Your task to perform on an android device: Search for the best gaming mouses on Amazon. Image 0: 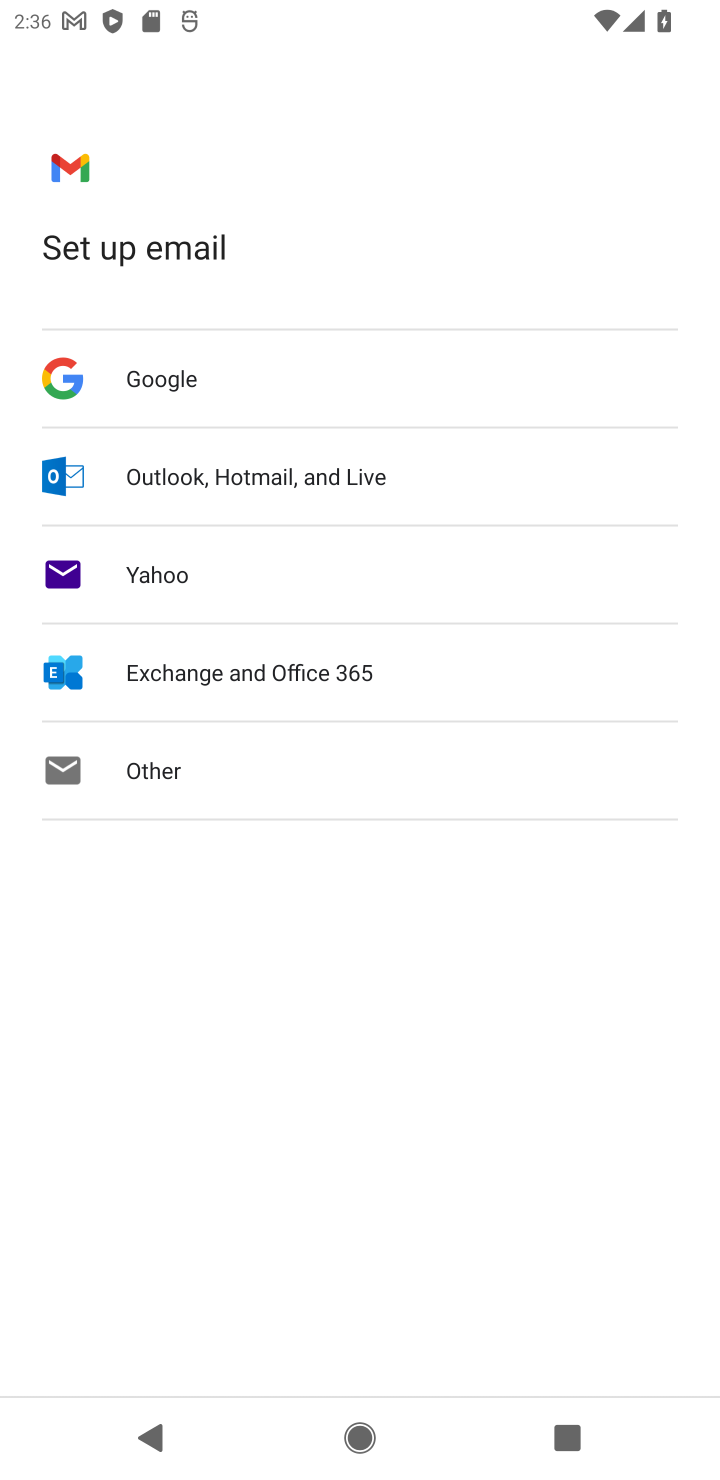
Step 0: press home button
Your task to perform on an android device: Search for the best gaming mouses on Amazon. Image 1: 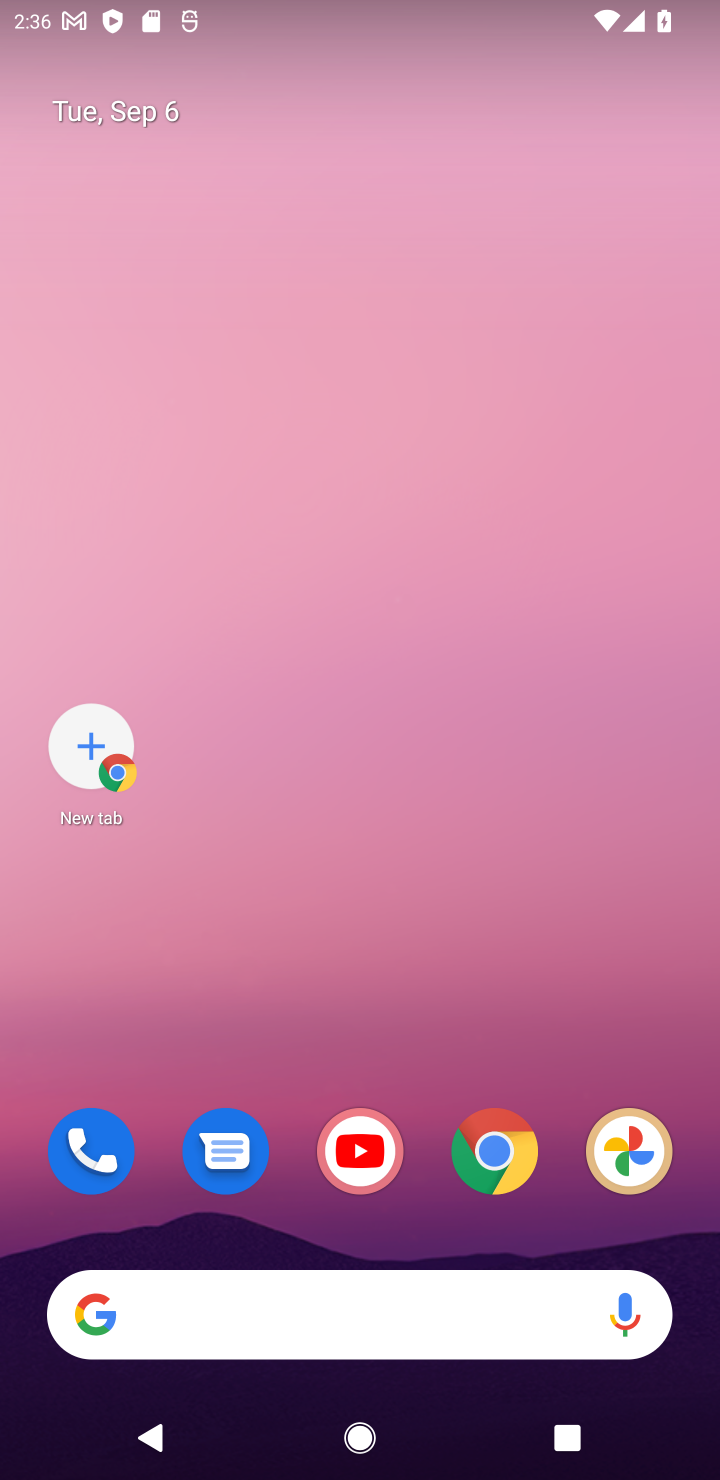
Step 1: click (500, 1160)
Your task to perform on an android device: Search for the best gaming mouses on Amazon. Image 2: 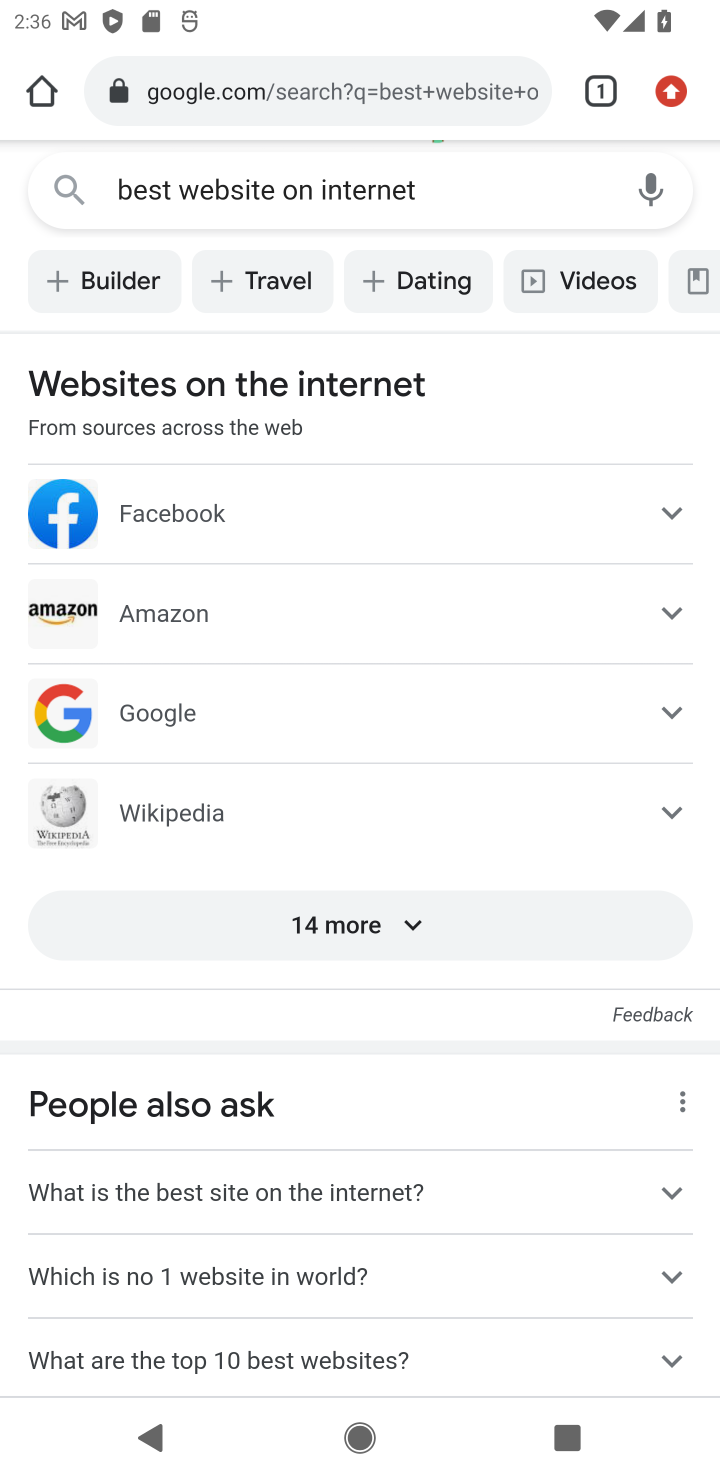
Step 2: click (249, 92)
Your task to perform on an android device: Search for the best gaming mouses on Amazon. Image 3: 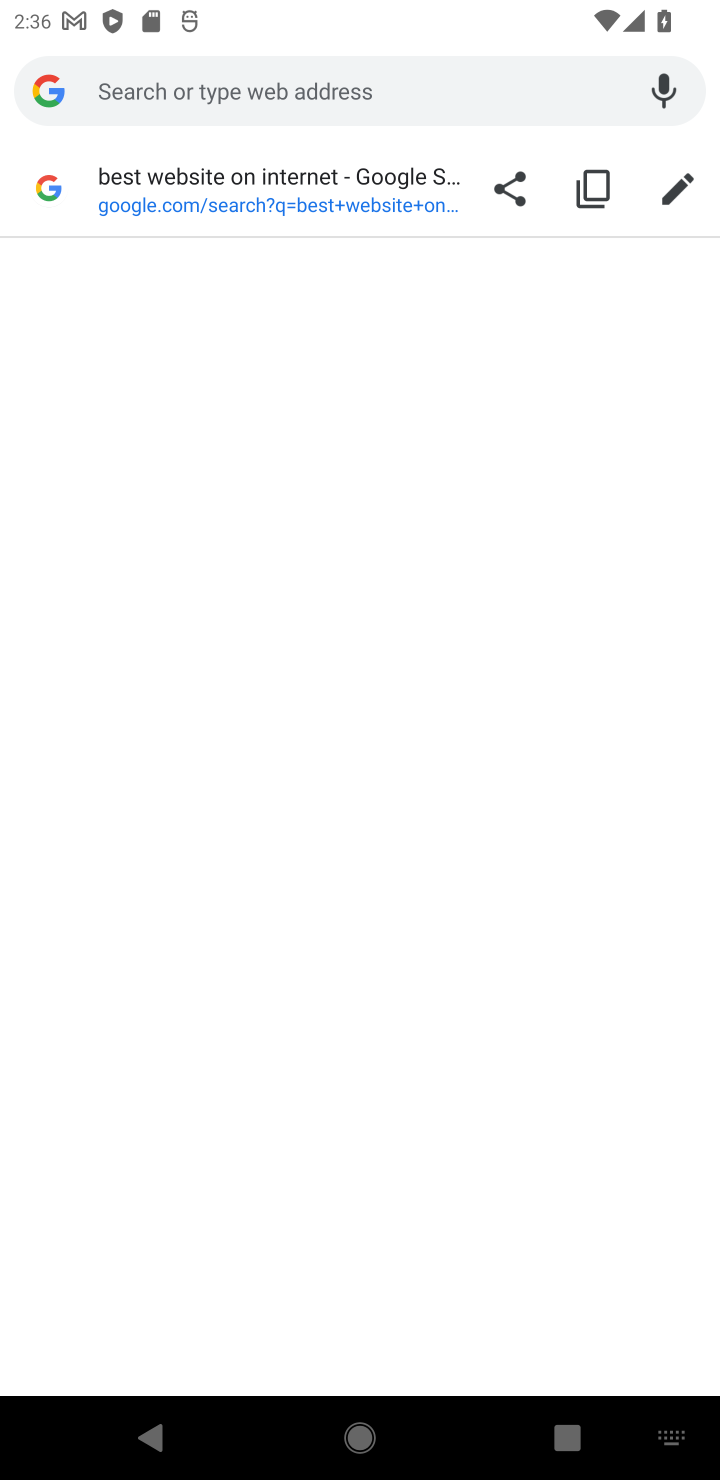
Step 3: type "amazon.com"
Your task to perform on an android device: Search for the best gaming mouses on Amazon. Image 4: 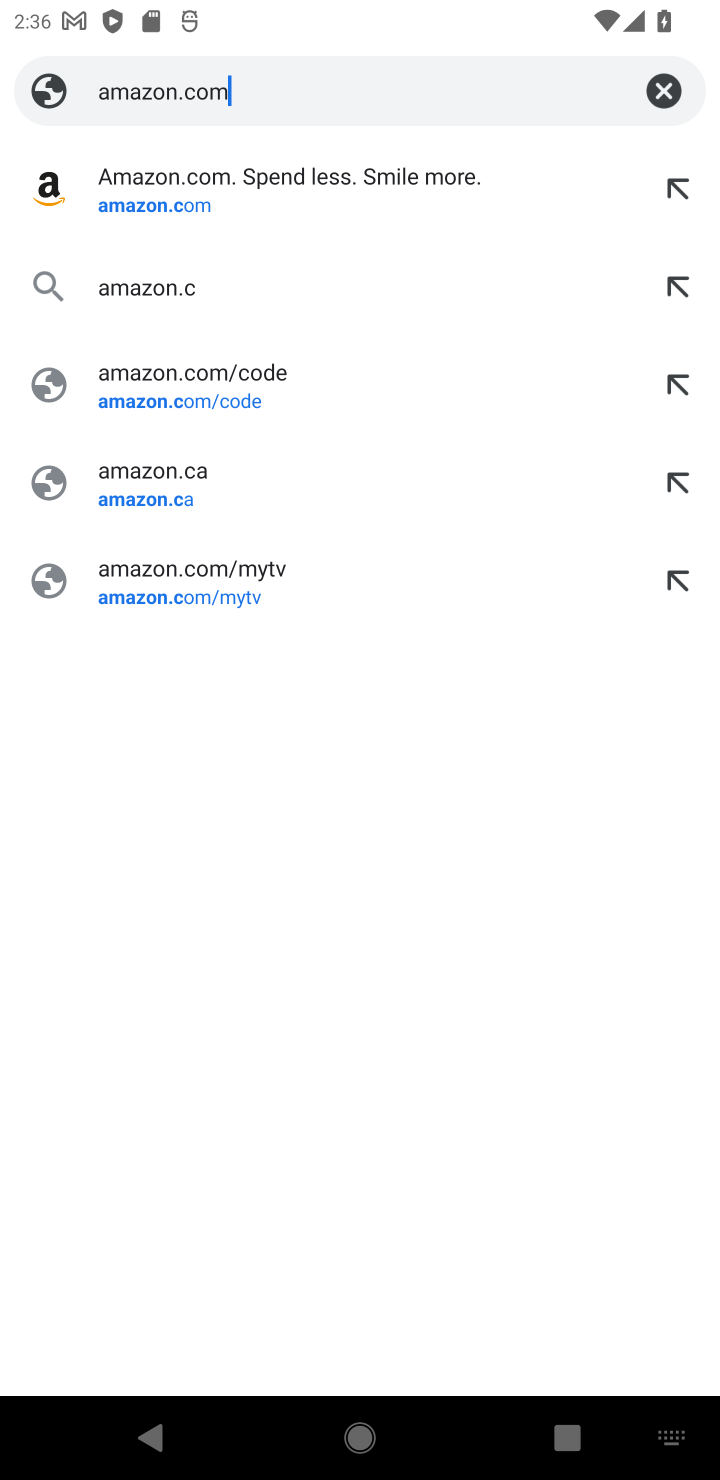
Step 4: type ""
Your task to perform on an android device: Search for the best gaming mouses on Amazon. Image 5: 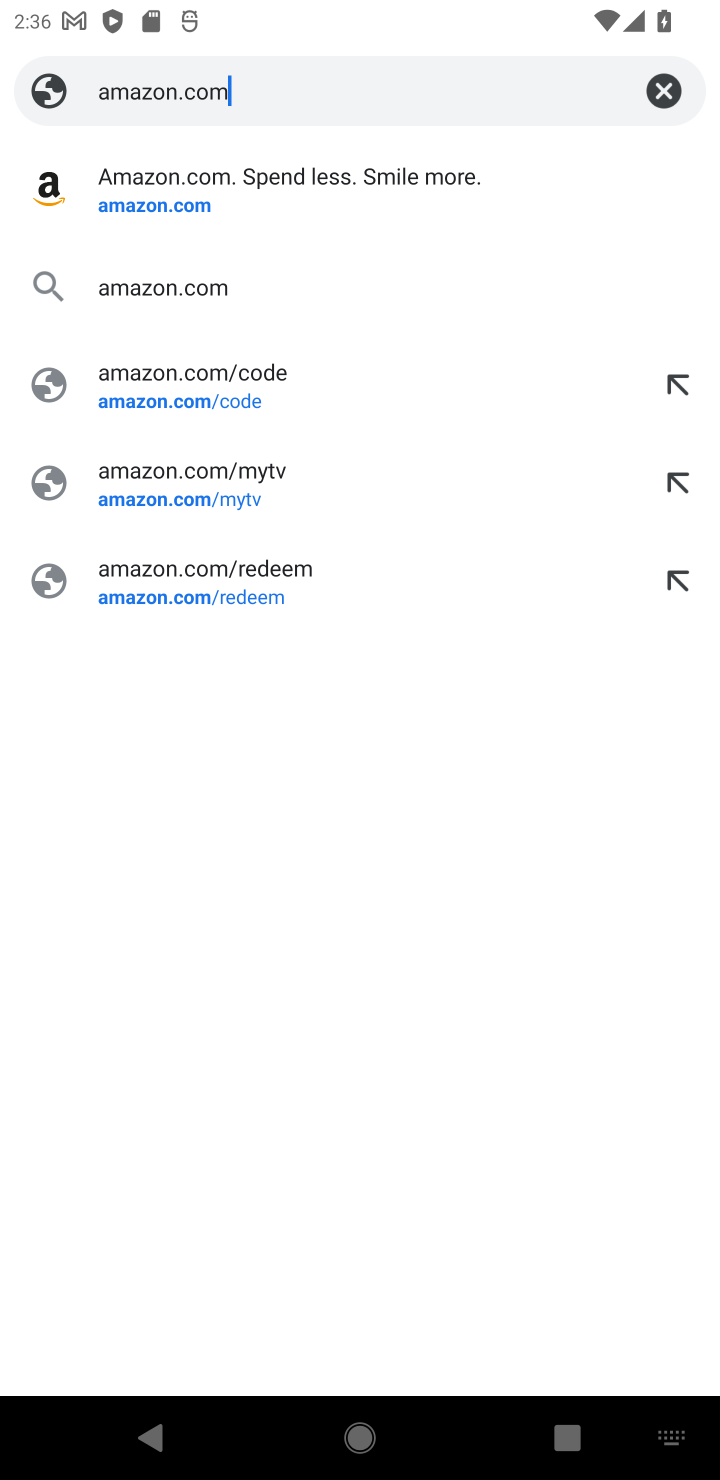
Step 5: click (189, 199)
Your task to perform on an android device: Search for the best gaming mouses on Amazon. Image 6: 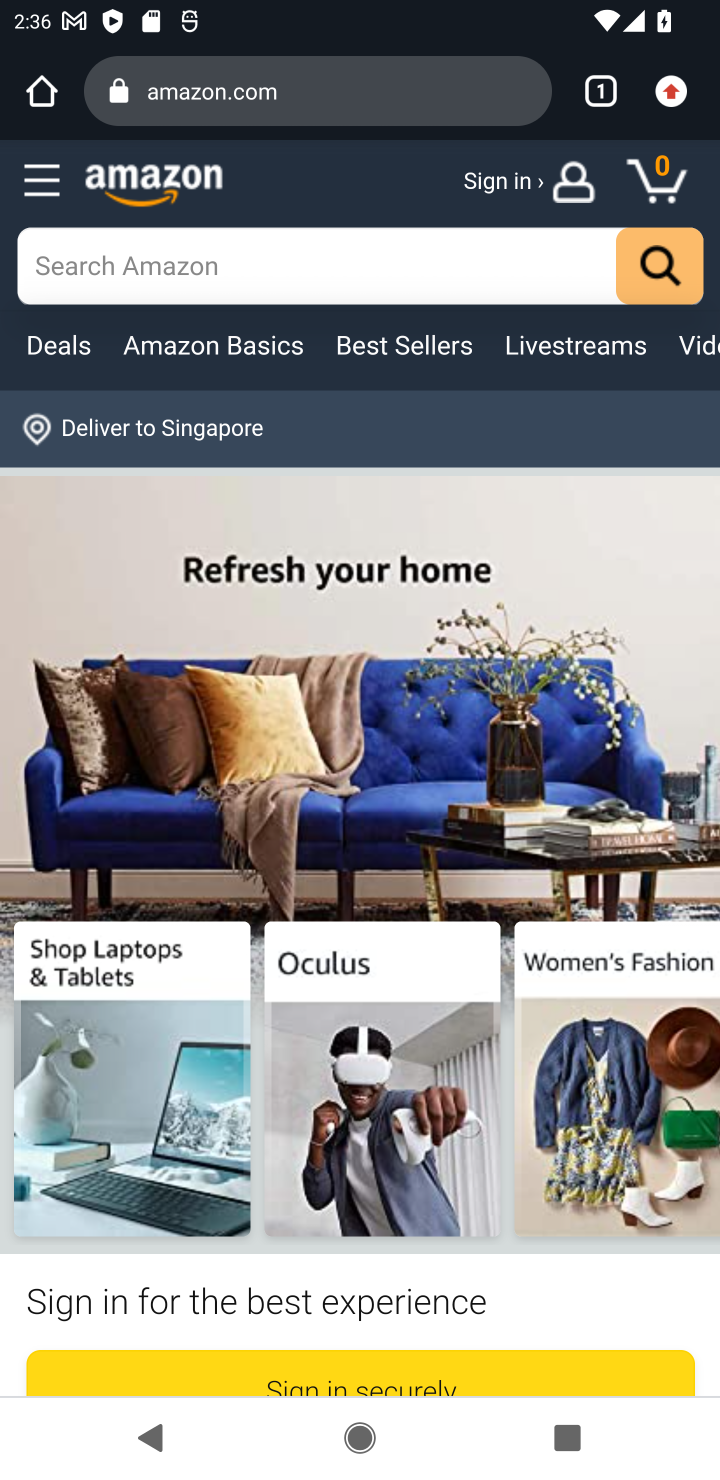
Step 6: click (144, 252)
Your task to perform on an android device: Search for the best gaming mouses on Amazon. Image 7: 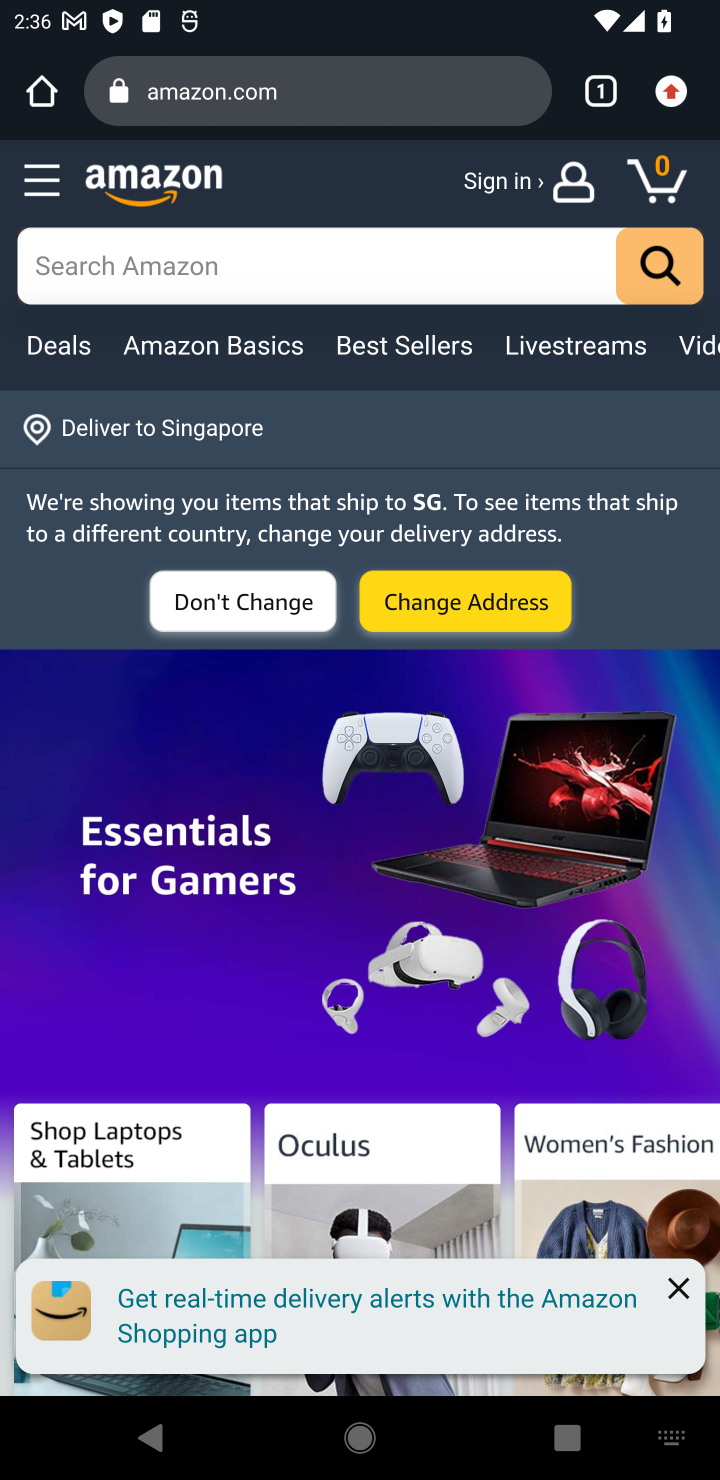
Step 7: type "gaming mouse"
Your task to perform on an android device: Search for the best gaming mouses on Amazon. Image 8: 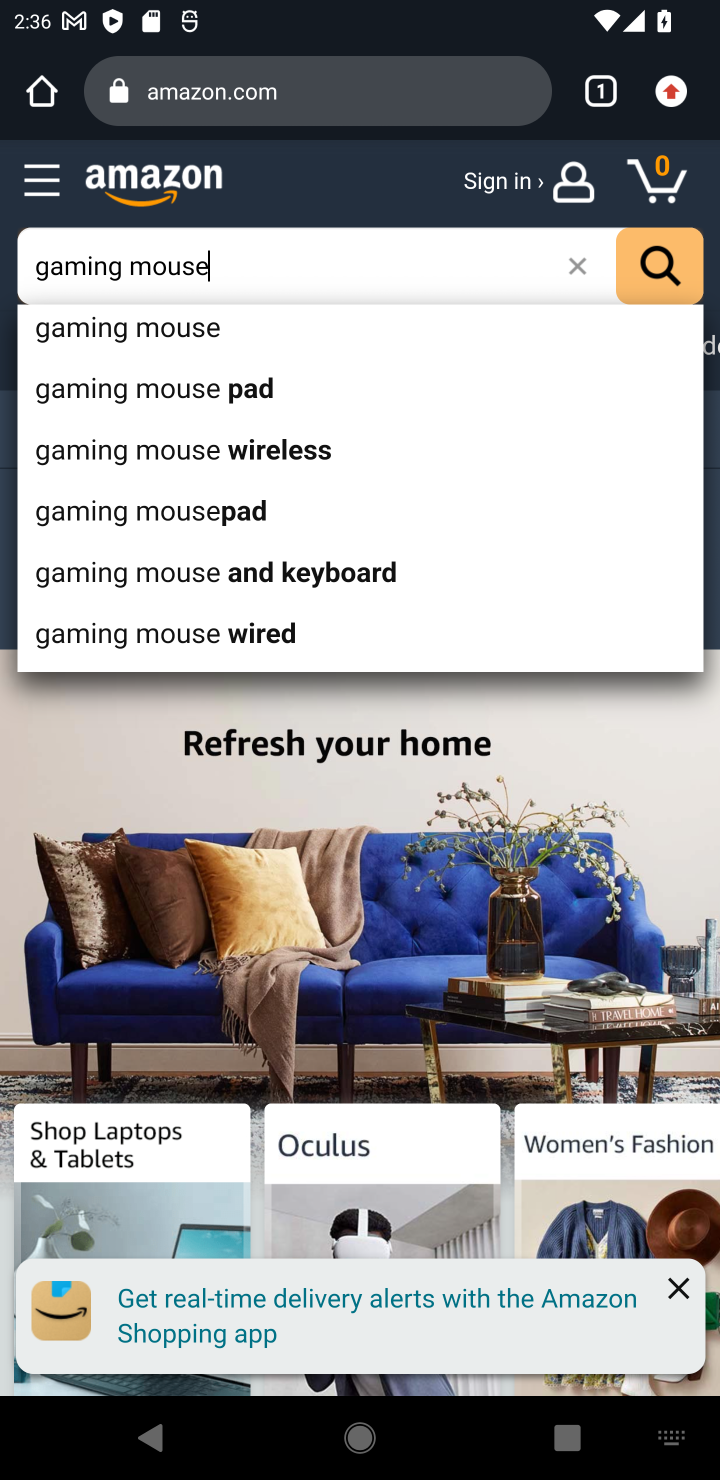
Step 8: click (109, 327)
Your task to perform on an android device: Search for the best gaming mouses on Amazon. Image 9: 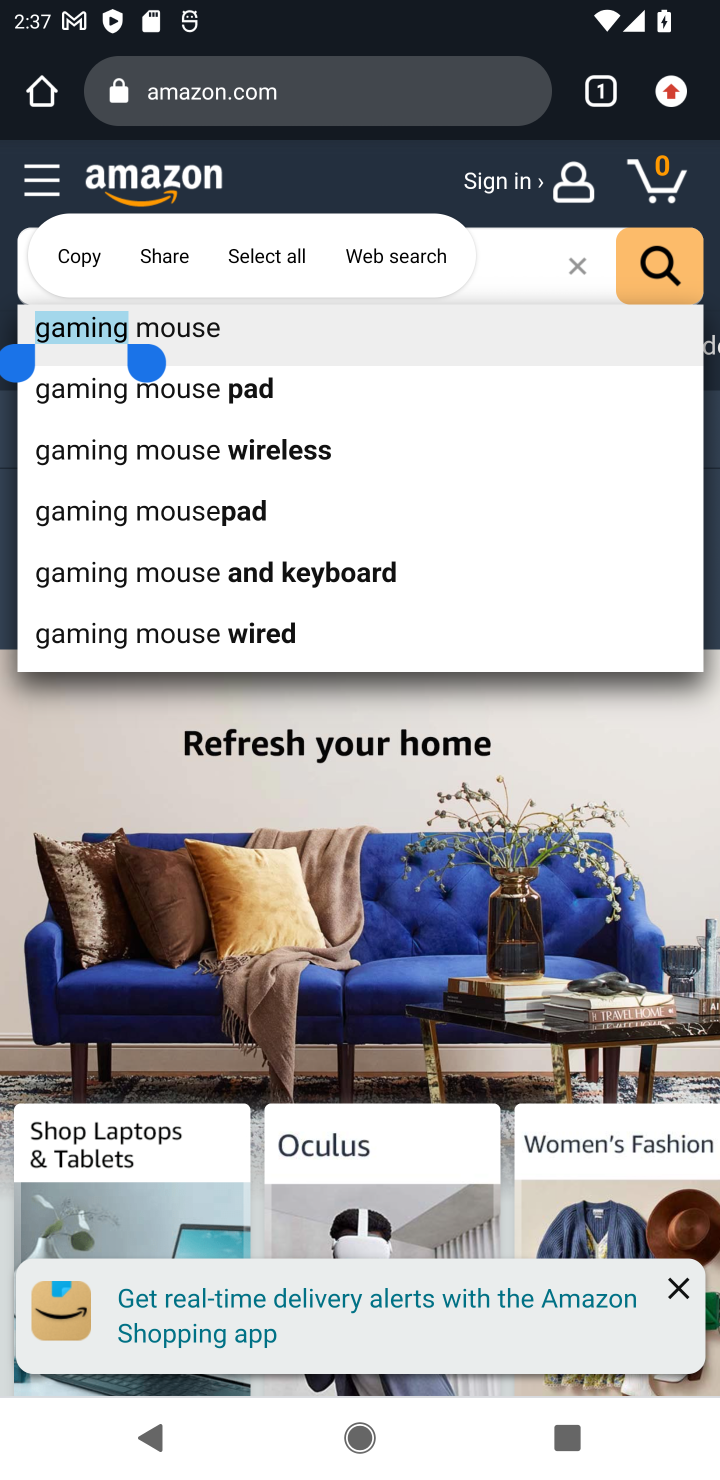
Step 9: click (203, 335)
Your task to perform on an android device: Search for the best gaming mouses on Amazon. Image 10: 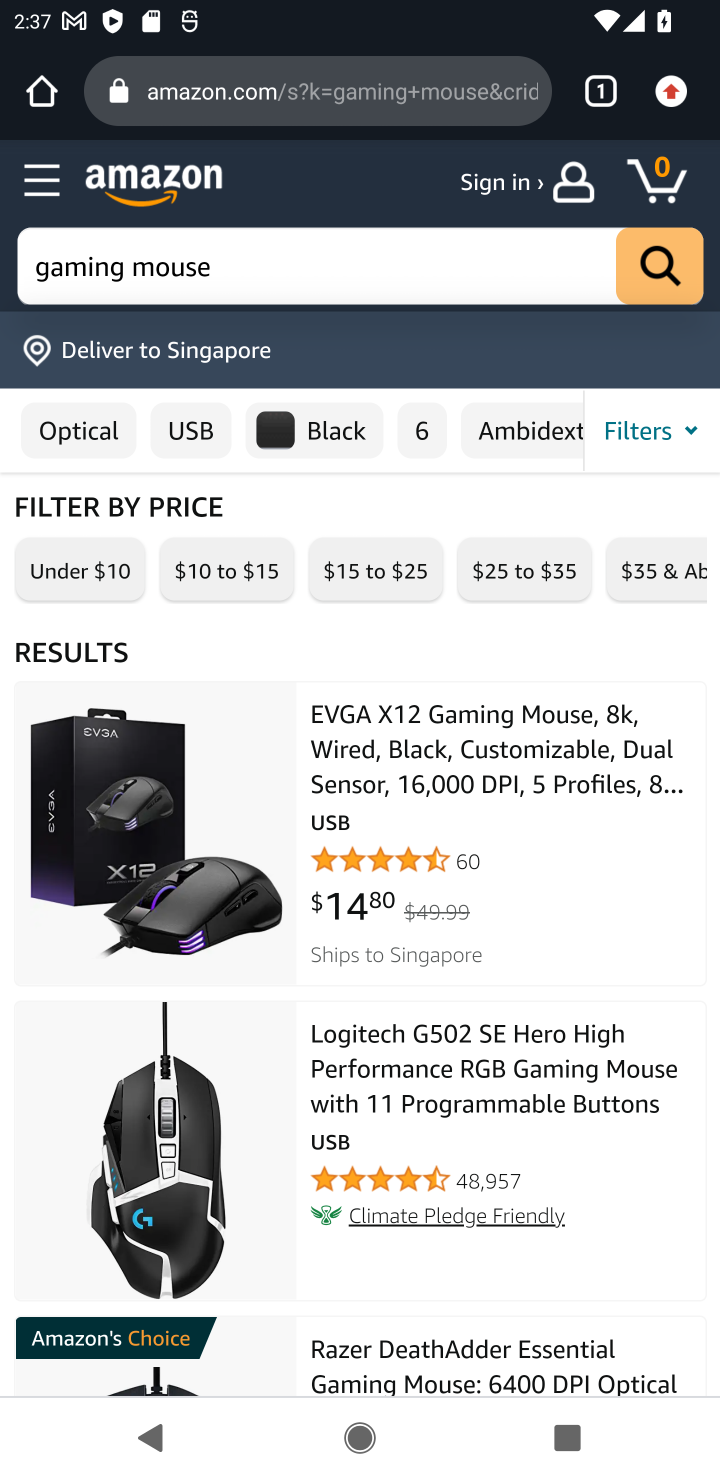
Step 10: click (628, 426)
Your task to perform on an android device: Search for the best gaming mouses on Amazon. Image 11: 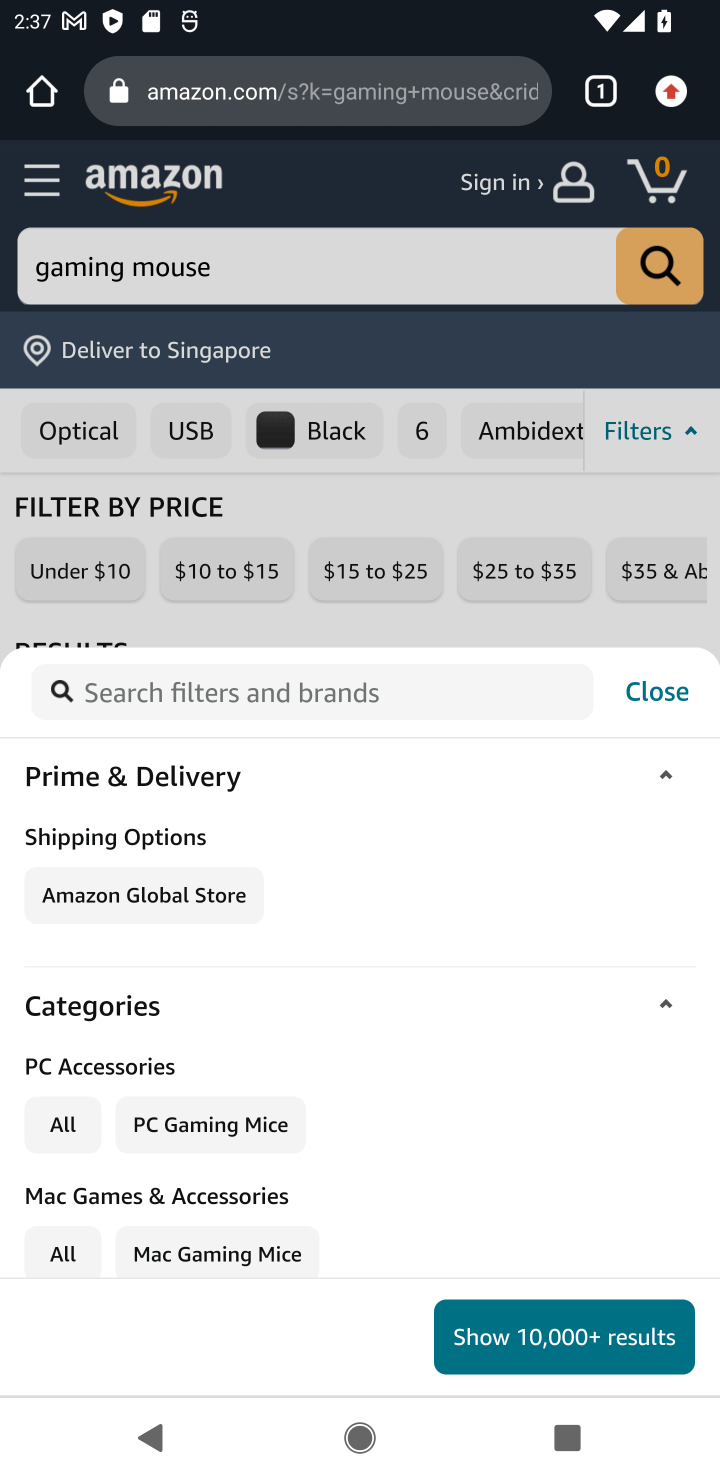
Step 11: drag from (429, 1170) to (419, 796)
Your task to perform on an android device: Search for the best gaming mouses on Amazon. Image 12: 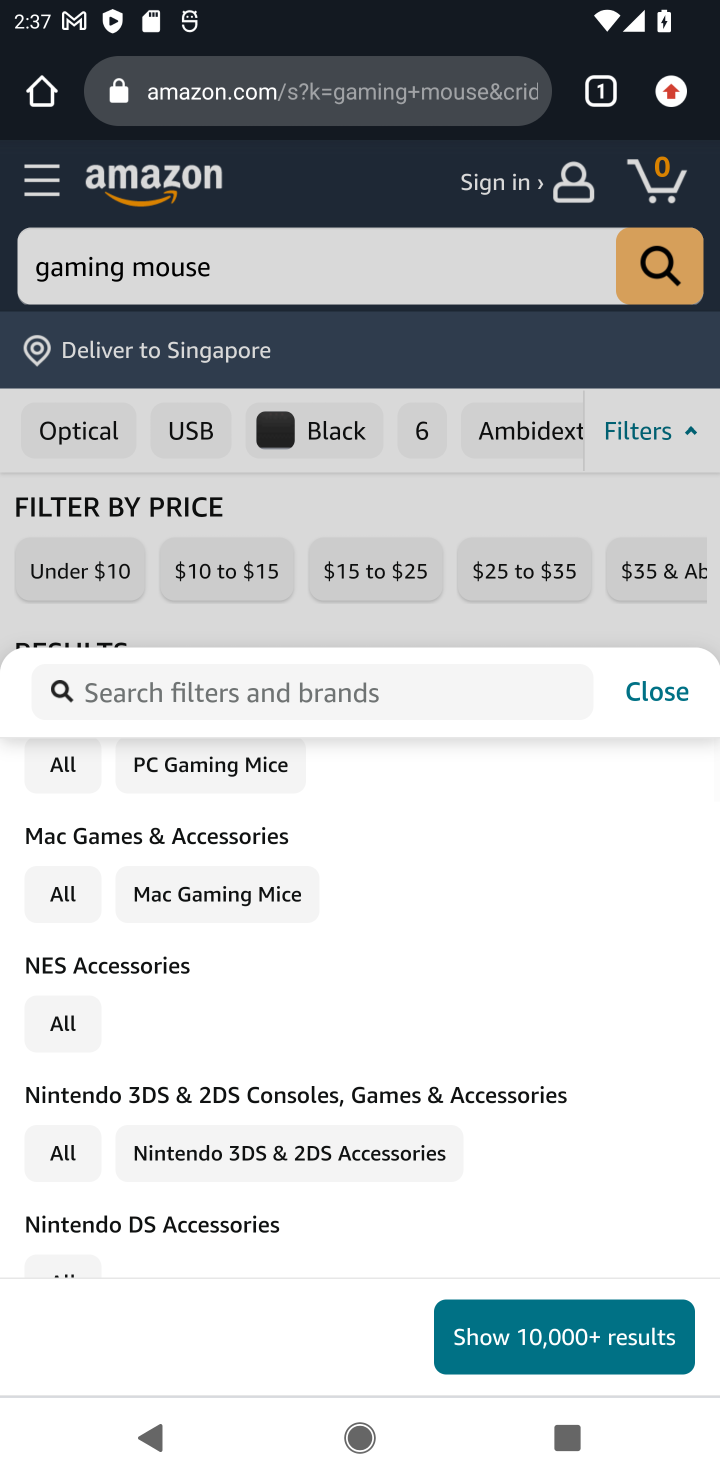
Step 12: drag from (278, 1052) to (325, 734)
Your task to perform on an android device: Search for the best gaming mouses on Amazon. Image 13: 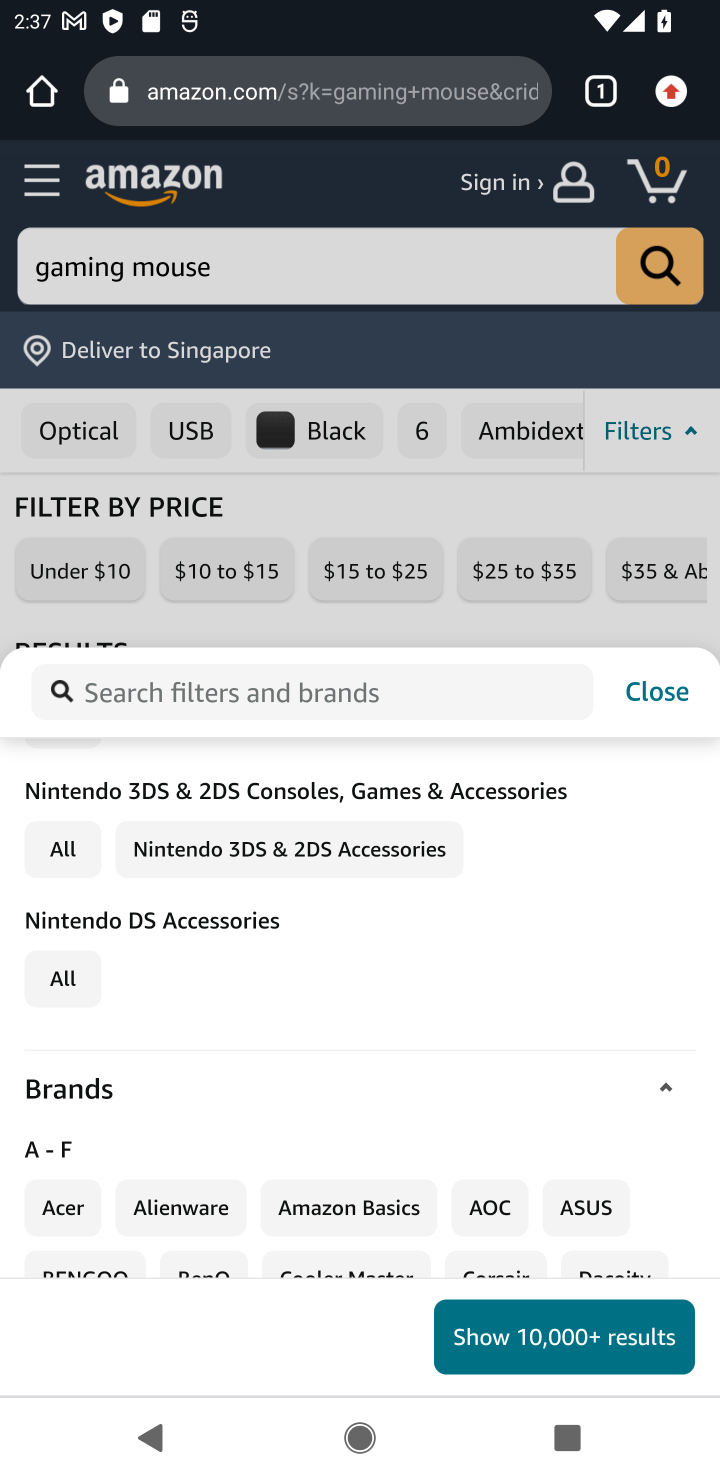
Step 13: drag from (258, 1042) to (278, 709)
Your task to perform on an android device: Search for the best gaming mouses on Amazon. Image 14: 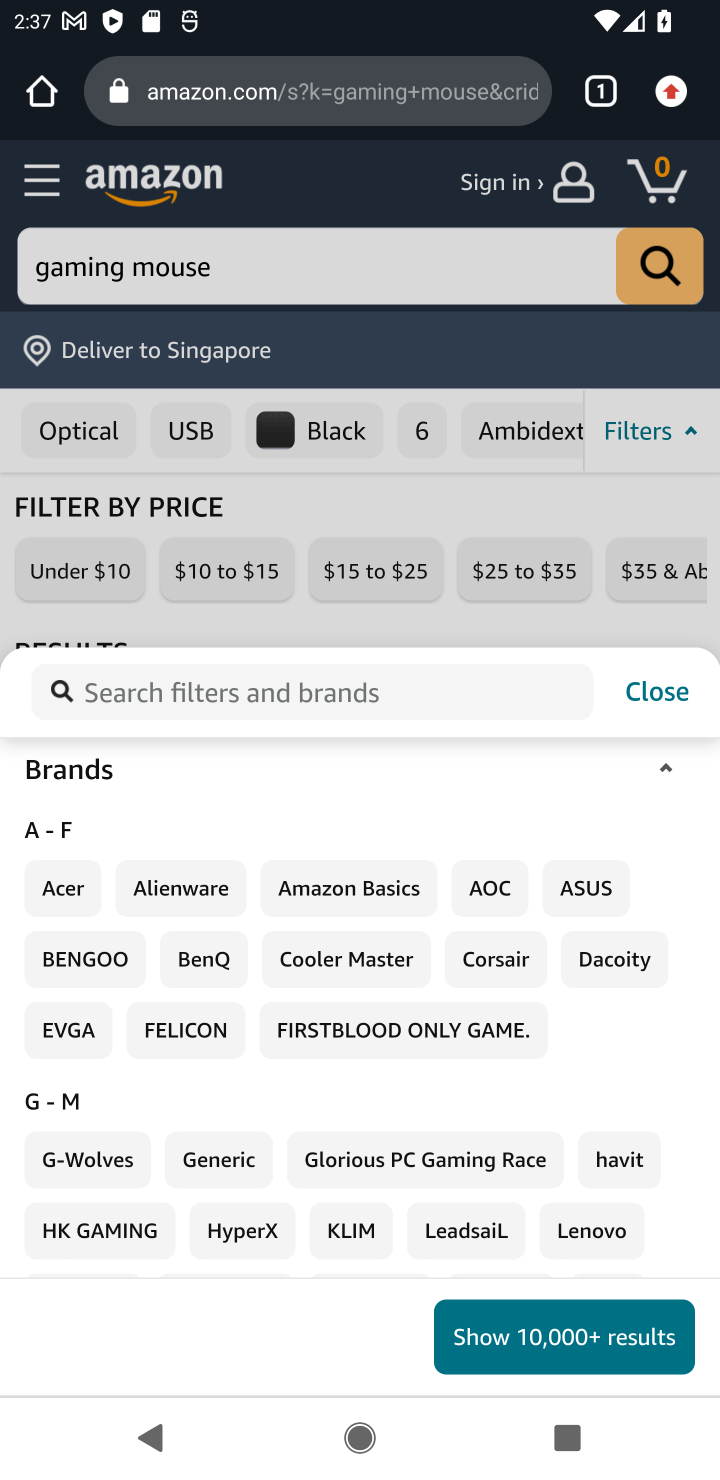
Step 14: drag from (323, 1073) to (323, 646)
Your task to perform on an android device: Search for the best gaming mouses on Amazon. Image 15: 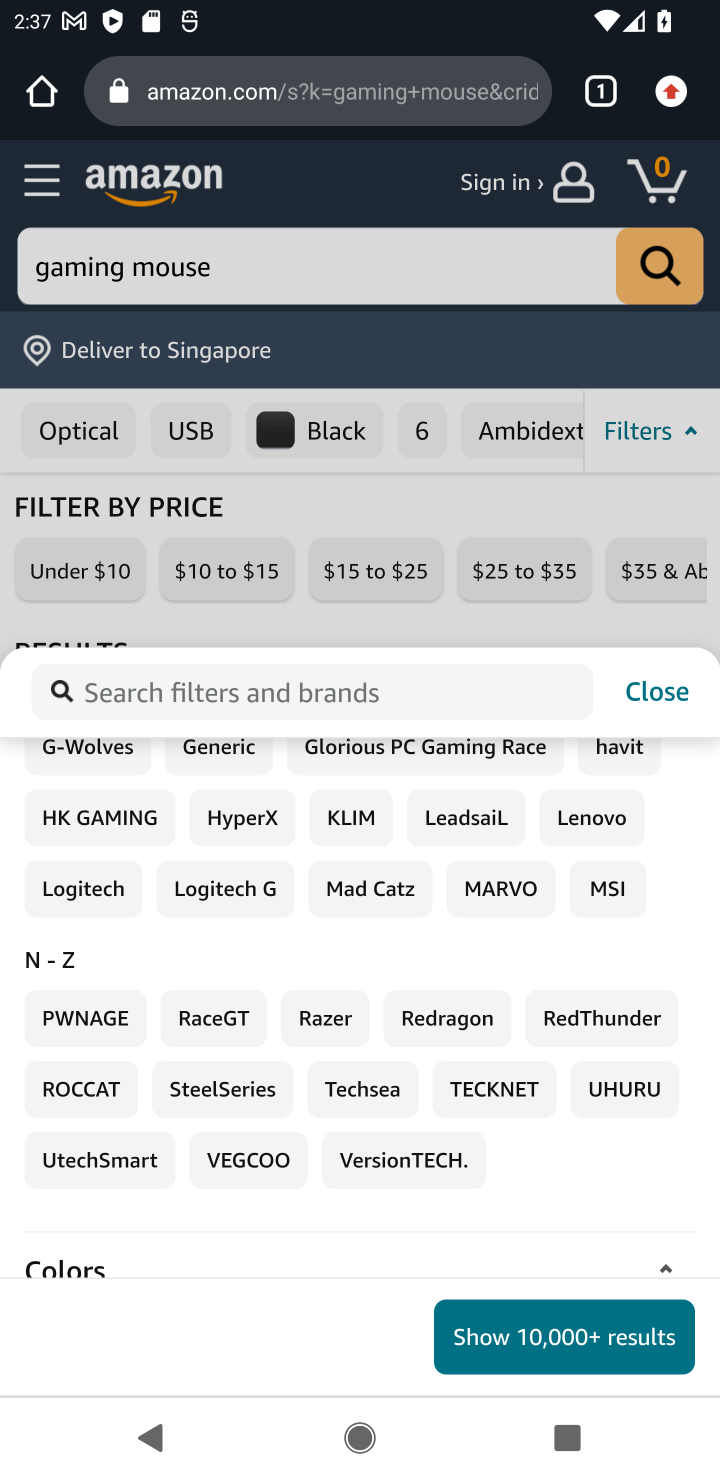
Step 15: drag from (302, 1219) to (371, 786)
Your task to perform on an android device: Search for the best gaming mouses on Amazon. Image 16: 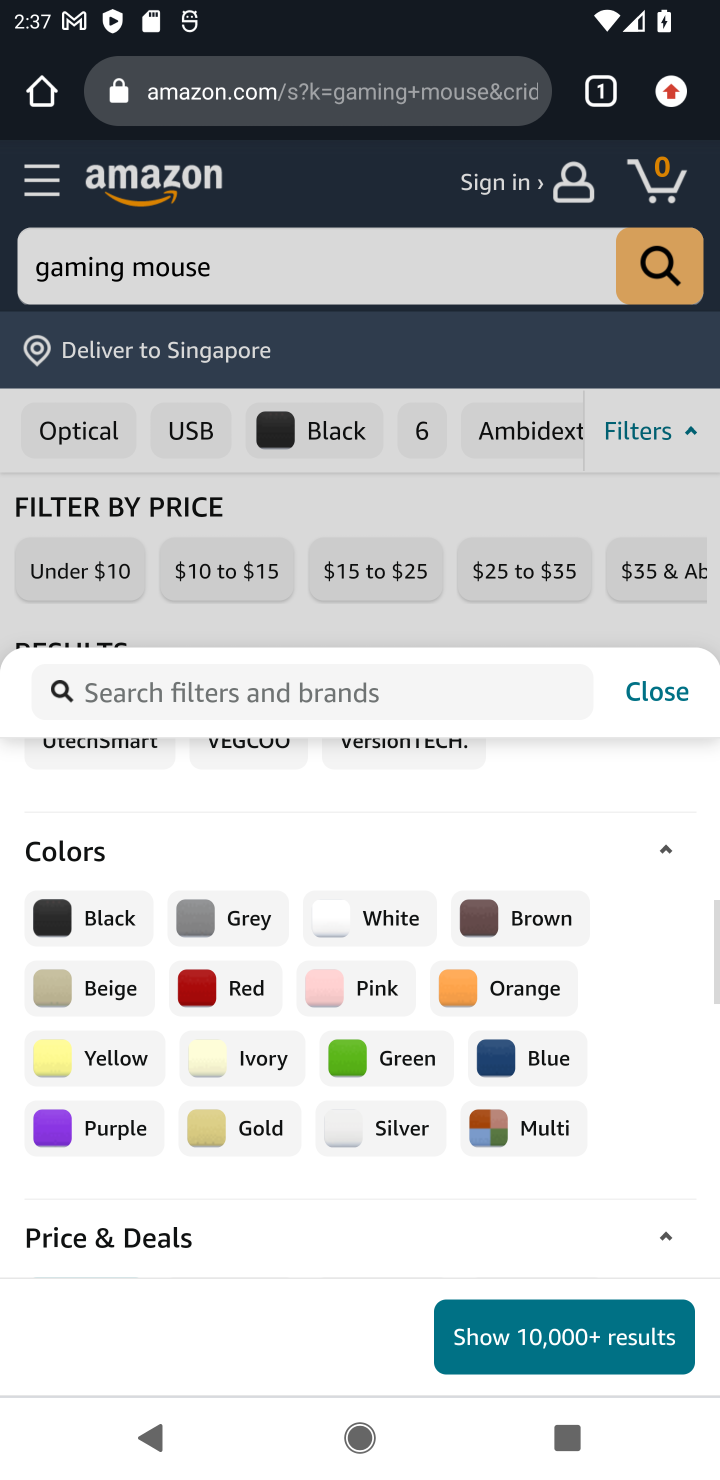
Step 16: drag from (292, 1268) to (292, 848)
Your task to perform on an android device: Search for the best gaming mouses on Amazon. Image 17: 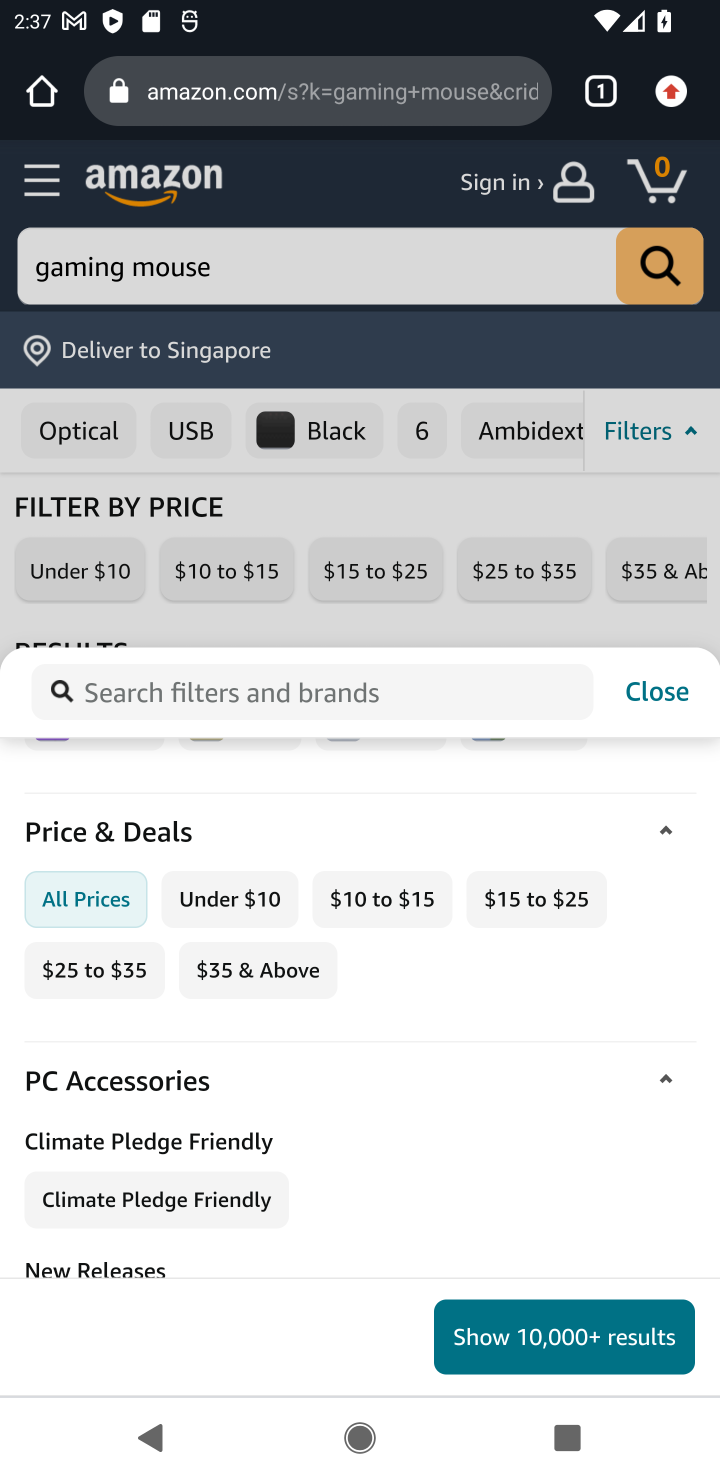
Step 17: drag from (310, 1165) to (280, 918)
Your task to perform on an android device: Search for the best gaming mouses on Amazon. Image 18: 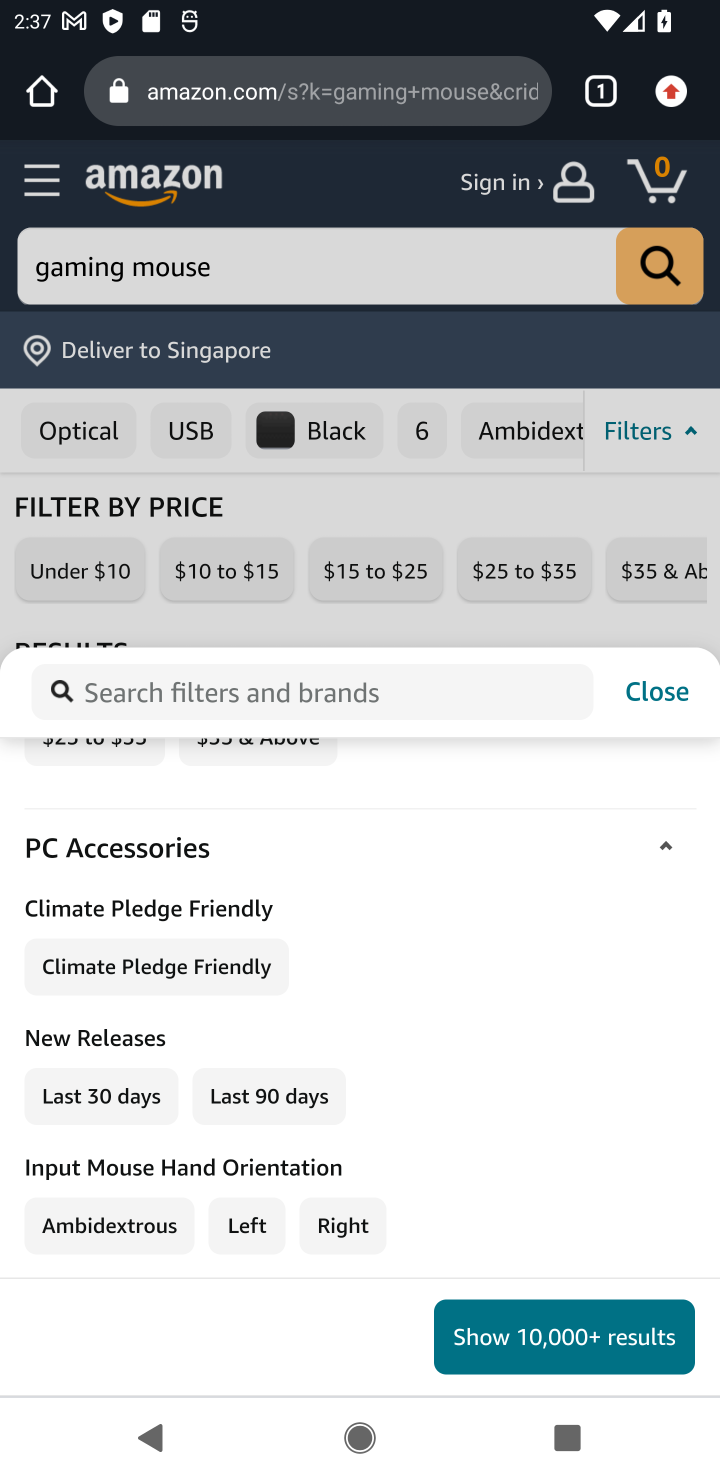
Step 18: drag from (453, 1096) to (480, 871)
Your task to perform on an android device: Search for the best gaming mouses on Amazon. Image 19: 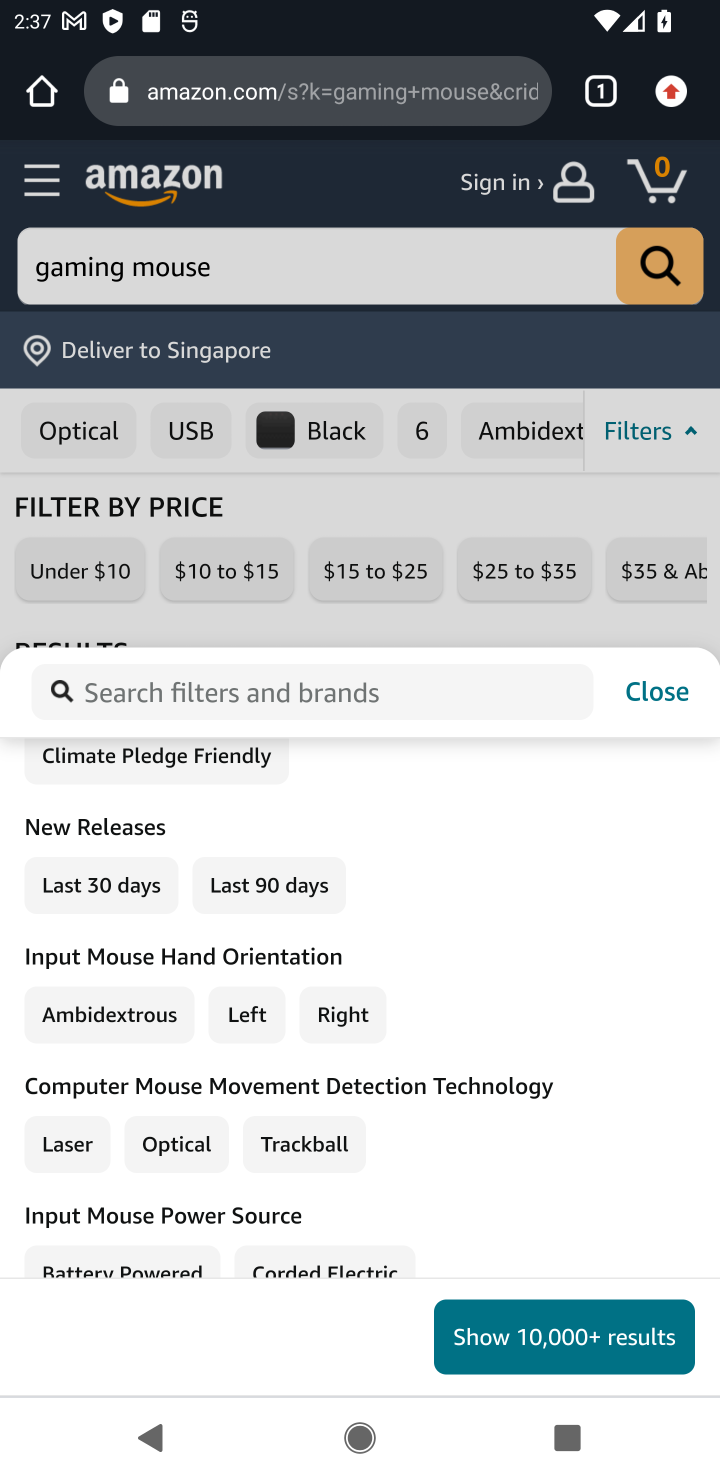
Step 19: drag from (546, 1009) to (537, 717)
Your task to perform on an android device: Search for the best gaming mouses on Amazon. Image 20: 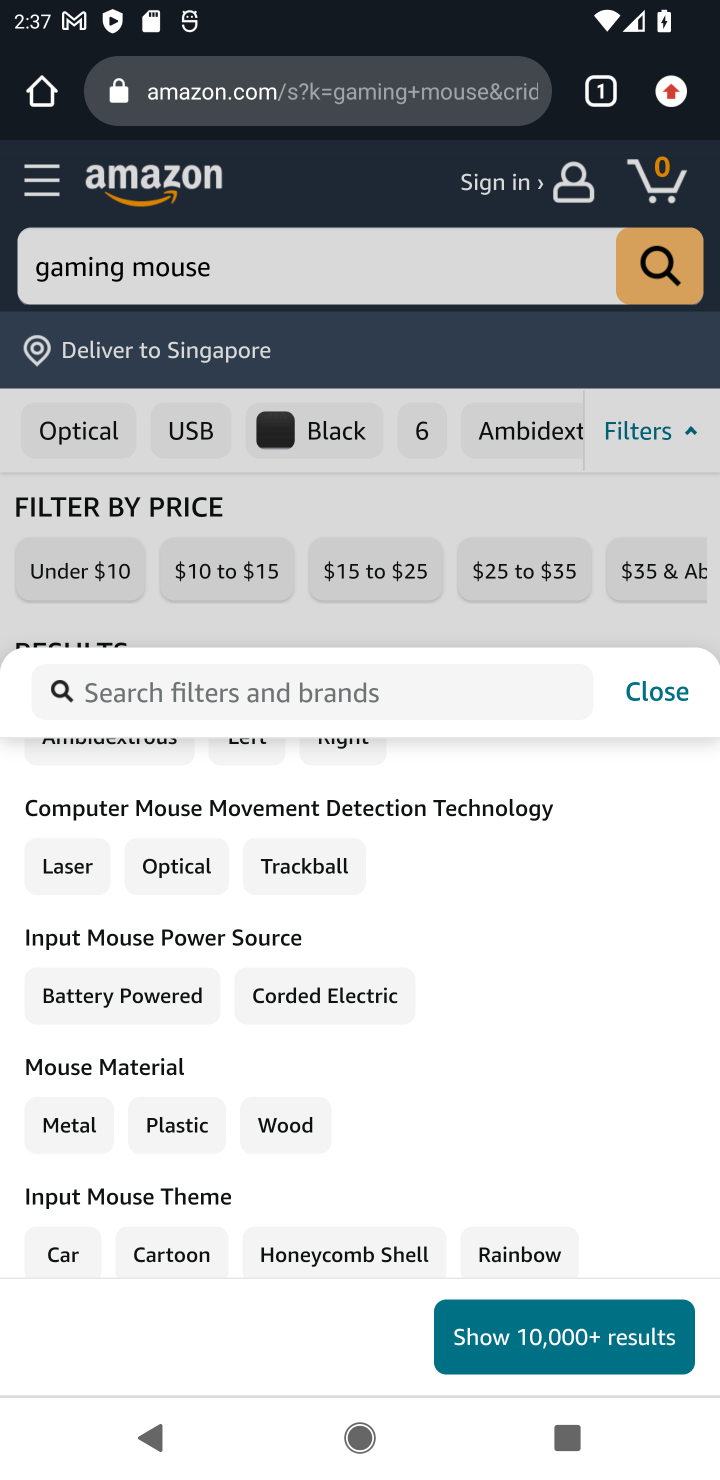
Step 20: drag from (463, 1102) to (615, 828)
Your task to perform on an android device: Search for the best gaming mouses on Amazon. Image 21: 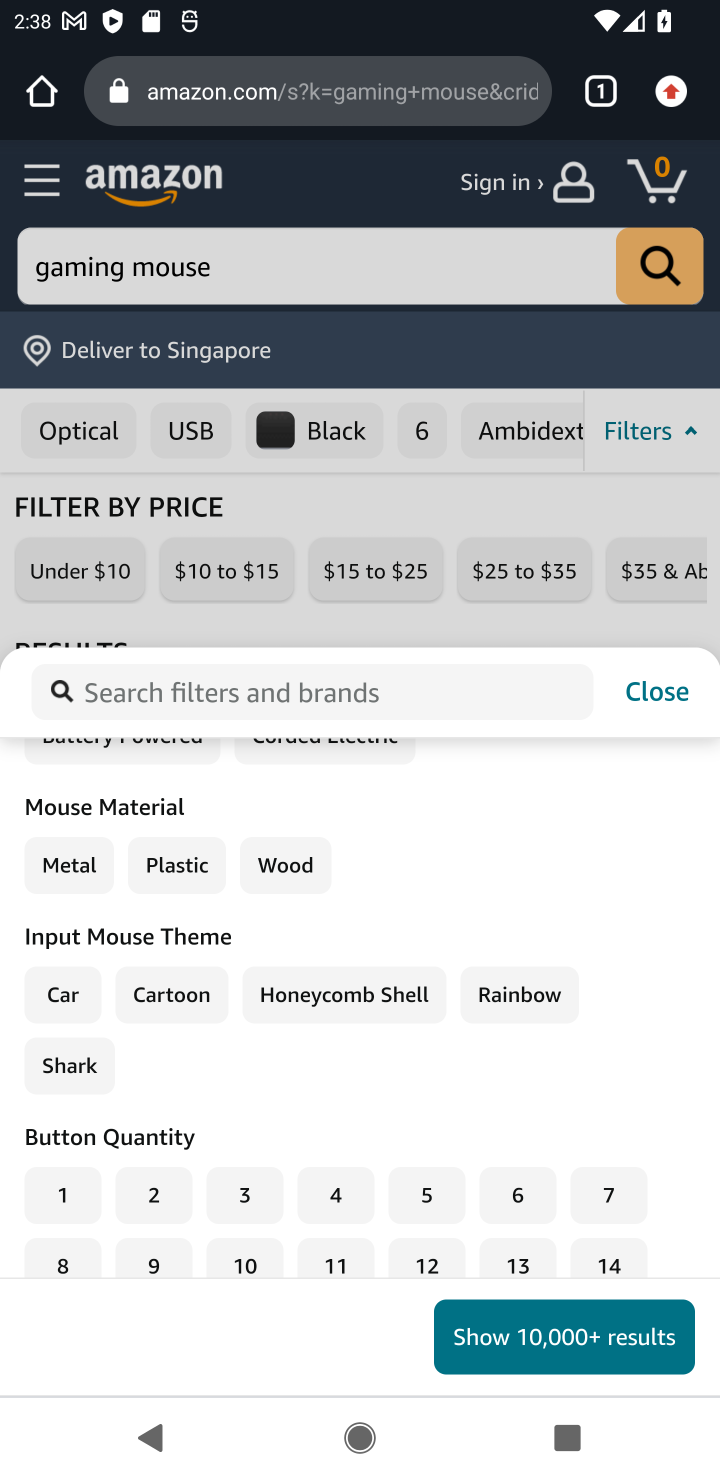
Step 21: drag from (610, 964) to (622, 850)
Your task to perform on an android device: Search for the best gaming mouses on Amazon. Image 22: 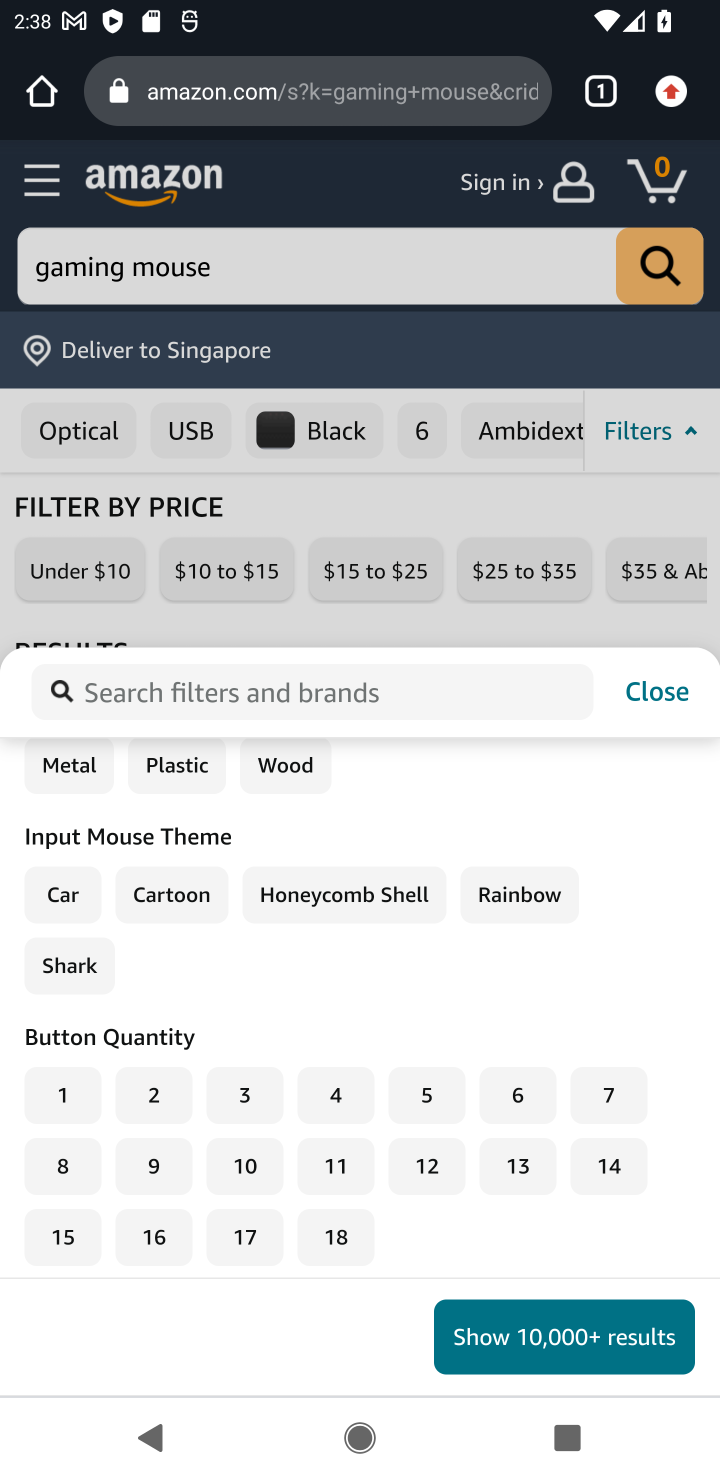
Step 22: click (662, 699)
Your task to perform on an android device: Search for the best gaming mouses on Amazon. Image 23: 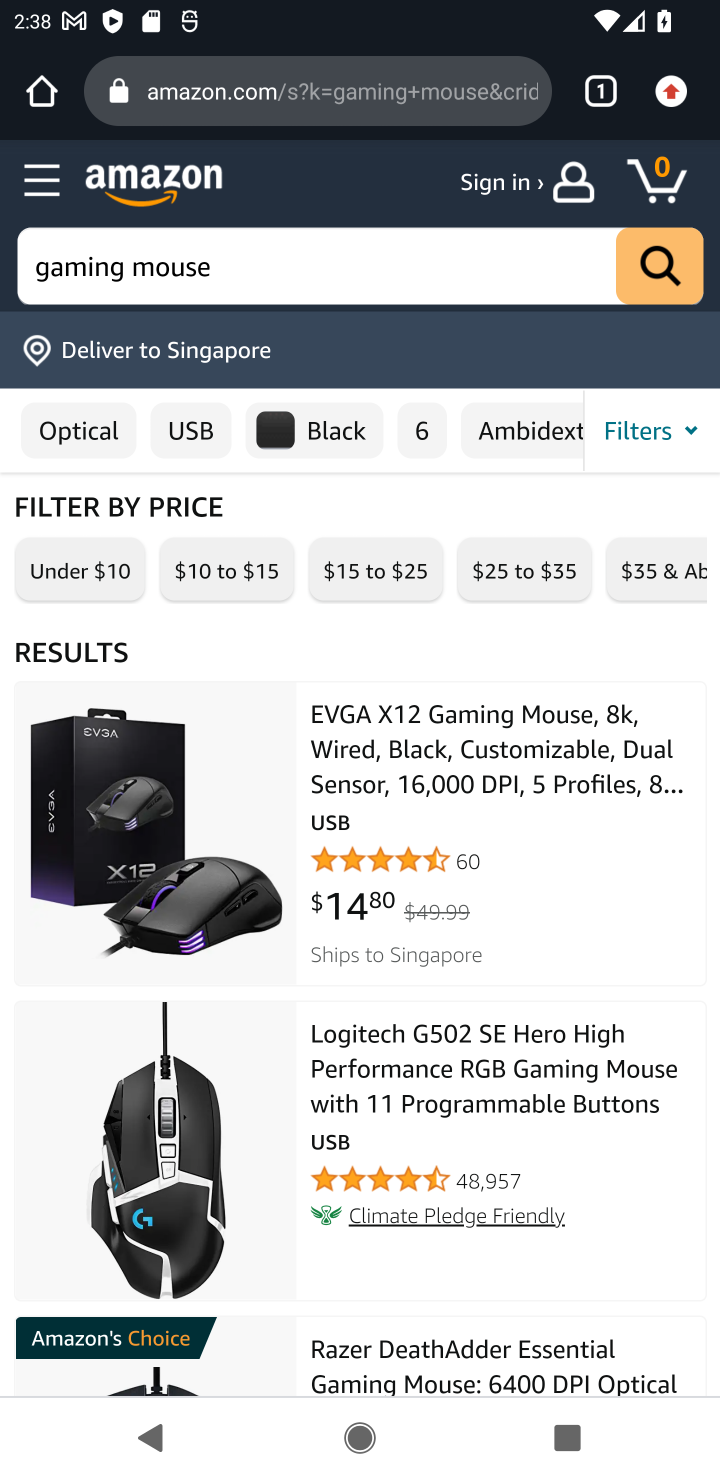
Step 23: task complete